Your task to perform on an android device: toggle translation in the chrome app Image 0: 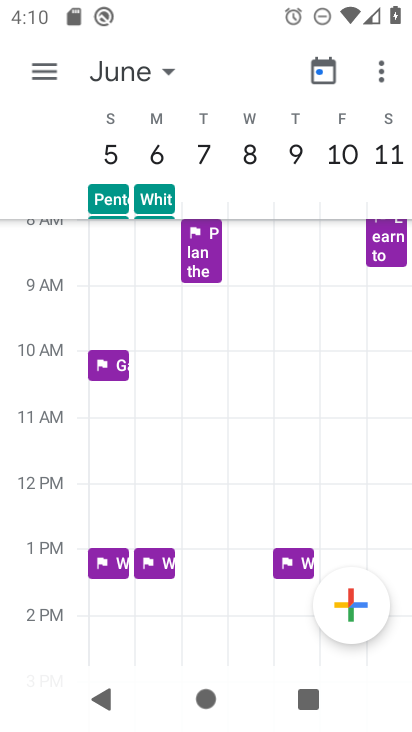
Step 0: press home button
Your task to perform on an android device: toggle translation in the chrome app Image 1: 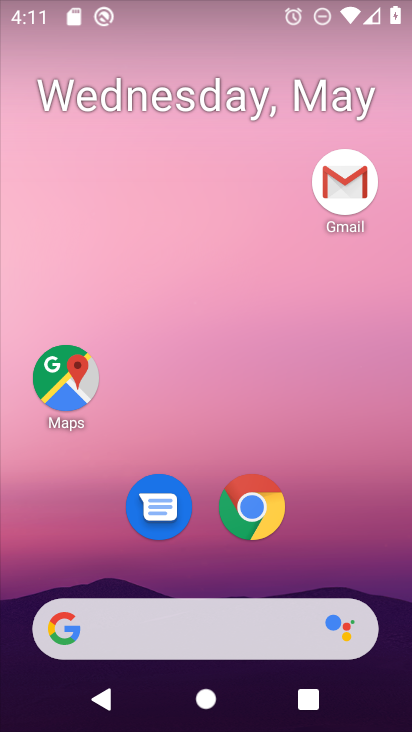
Step 1: click (253, 500)
Your task to perform on an android device: toggle translation in the chrome app Image 2: 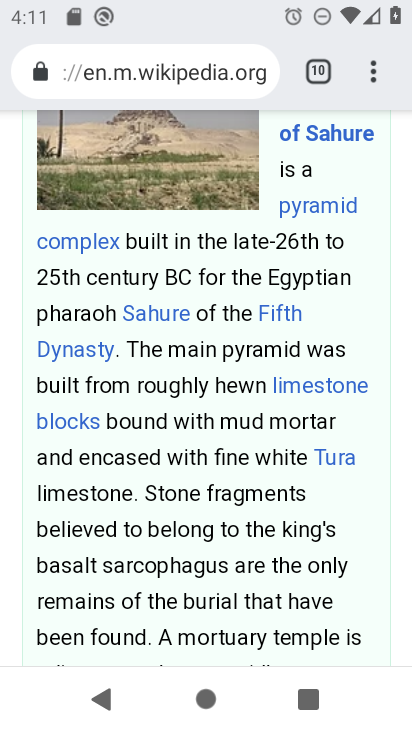
Step 2: click (376, 76)
Your task to perform on an android device: toggle translation in the chrome app Image 3: 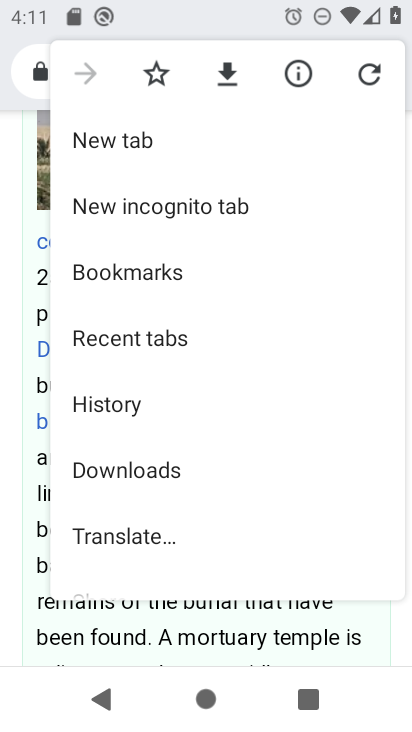
Step 3: drag from (223, 511) to (207, 329)
Your task to perform on an android device: toggle translation in the chrome app Image 4: 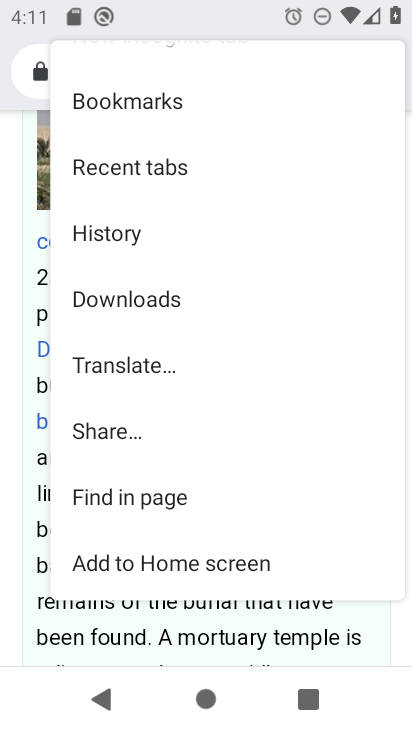
Step 4: drag from (228, 486) to (206, 329)
Your task to perform on an android device: toggle translation in the chrome app Image 5: 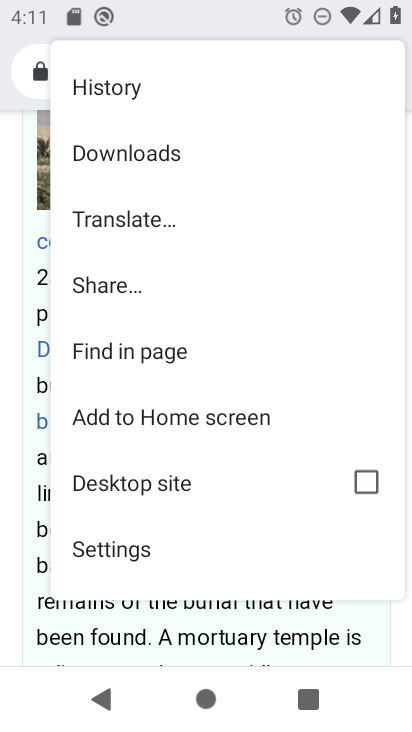
Step 5: click (126, 548)
Your task to perform on an android device: toggle translation in the chrome app Image 6: 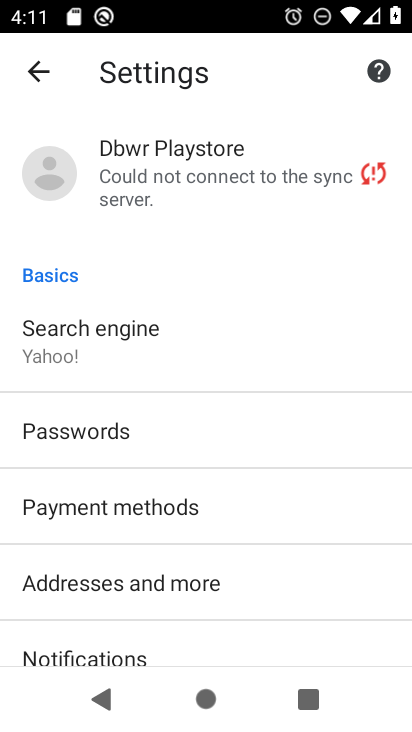
Step 6: drag from (265, 609) to (262, 373)
Your task to perform on an android device: toggle translation in the chrome app Image 7: 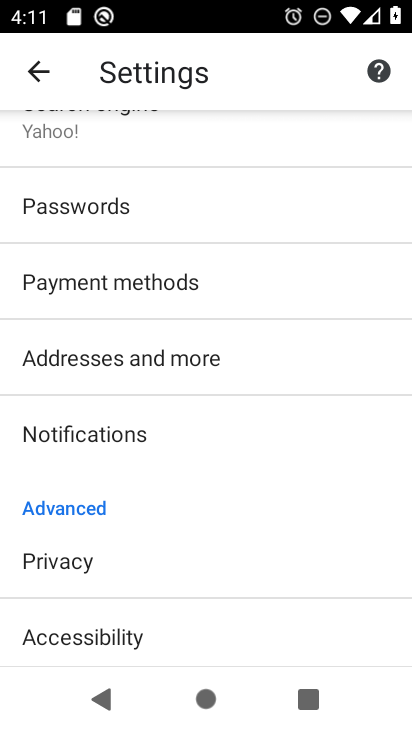
Step 7: drag from (269, 569) to (267, 319)
Your task to perform on an android device: toggle translation in the chrome app Image 8: 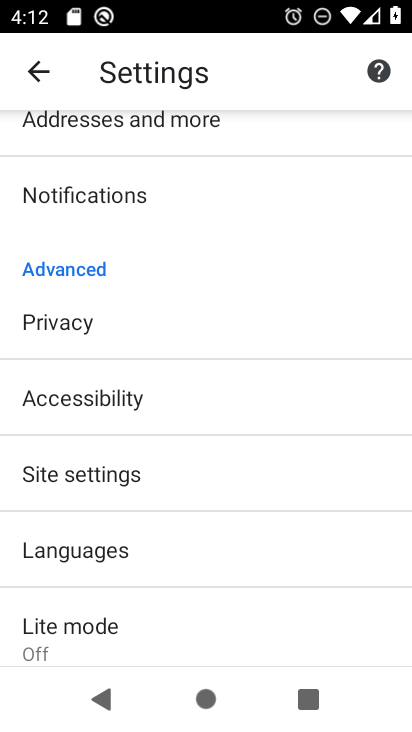
Step 8: click (97, 557)
Your task to perform on an android device: toggle translation in the chrome app Image 9: 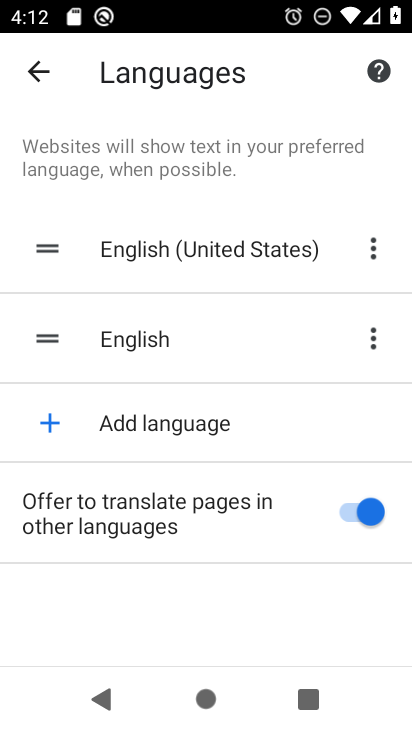
Step 9: click (348, 514)
Your task to perform on an android device: toggle translation in the chrome app Image 10: 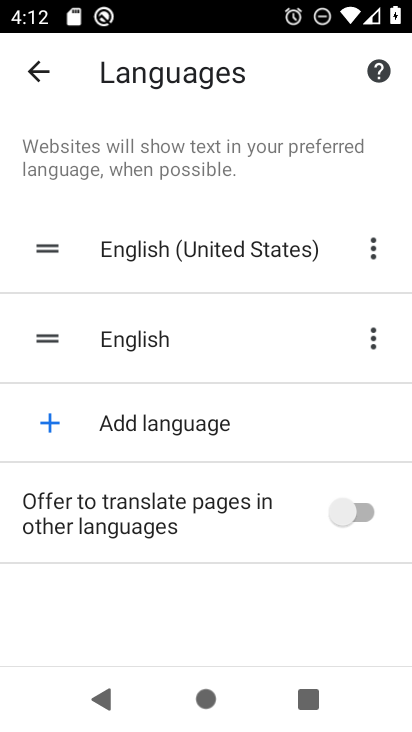
Step 10: task complete